Your task to perform on an android device: Go to Yahoo.com Image 0: 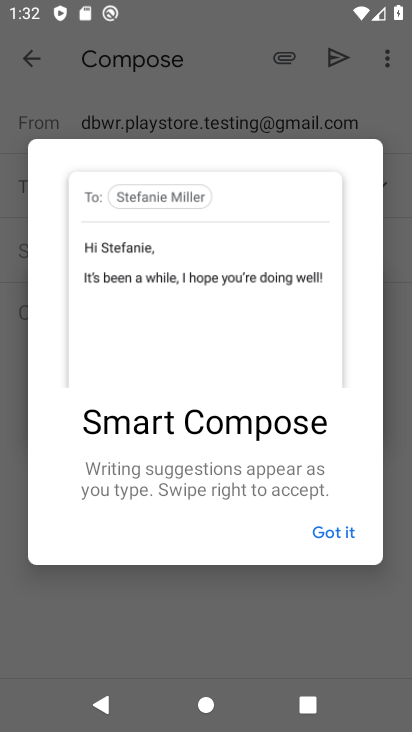
Step 0: press home button
Your task to perform on an android device: Go to Yahoo.com Image 1: 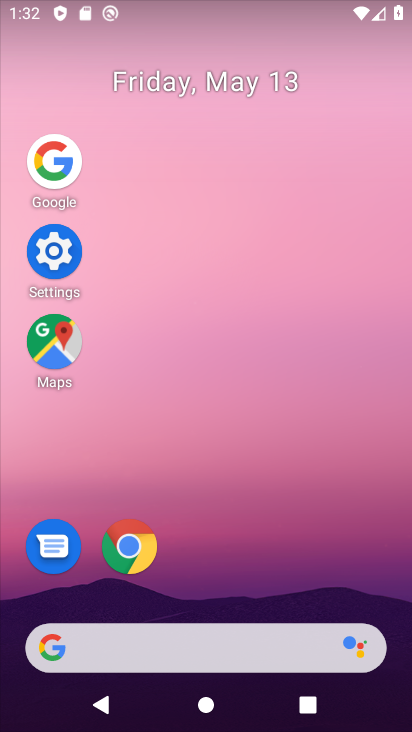
Step 1: click (133, 552)
Your task to perform on an android device: Go to Yahoo.com Image 2: 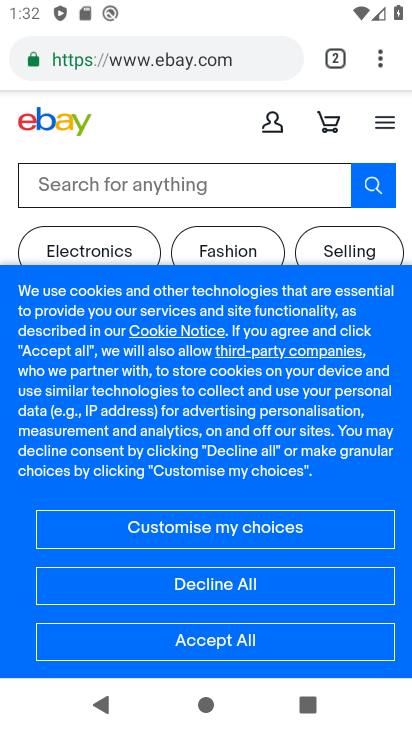
Step 2: click (334, 67)
Your task to perform on an android device: Go to Yahoo.com Image 3: 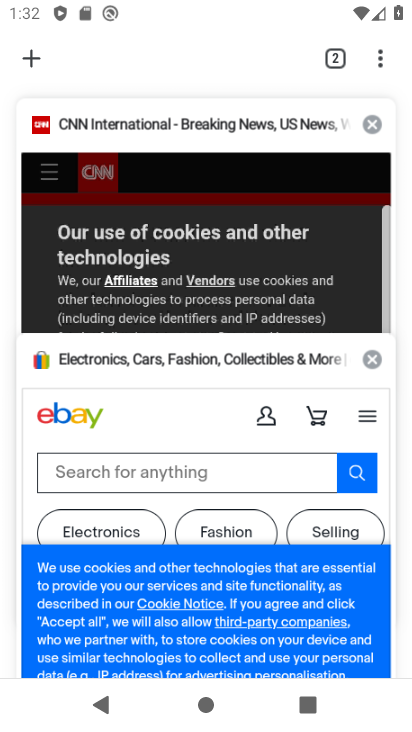
Step 3: click (32, 57)
Your task to perform on an android device: Go to Yahoo.com Image 4: 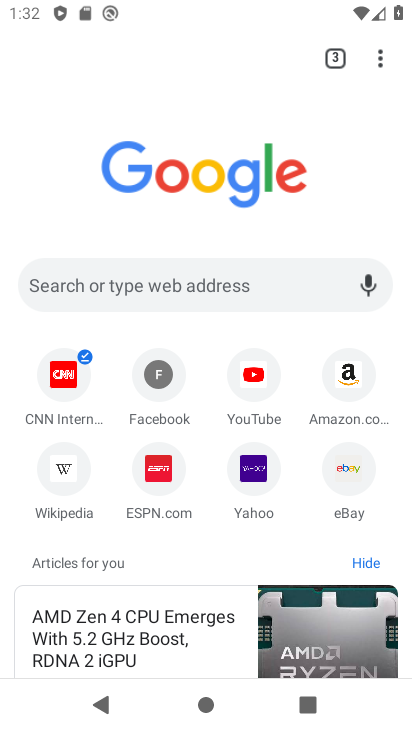
Step 4: click (260, 475)
Your task to perform on an android device: Go to Yahoo.com Image 5: 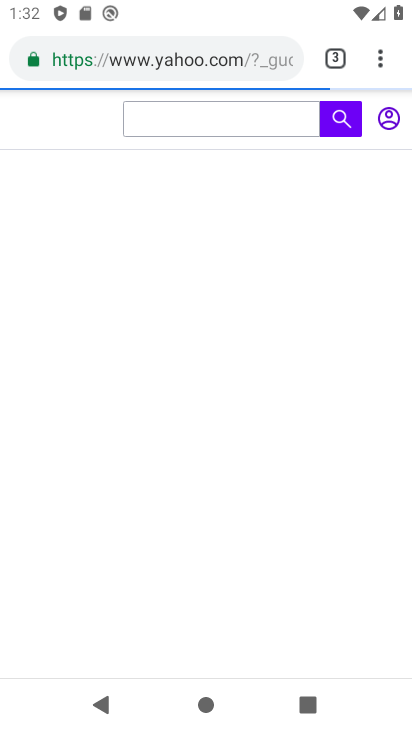
Step 5: task complete